Your task to perform on an android device: toggle javascript in the chrome app Image 0: 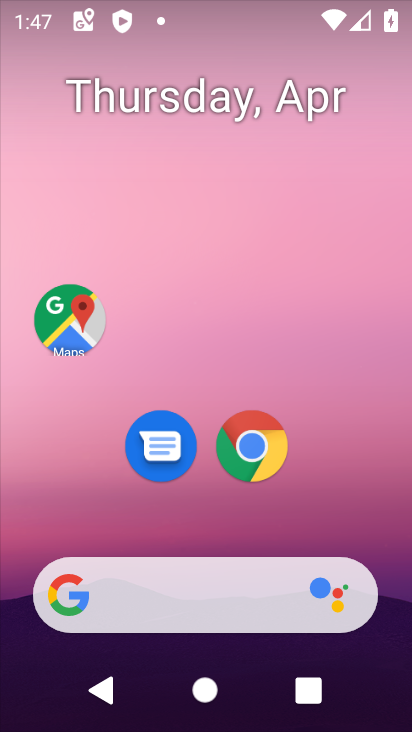
Step 0: click (221, 465)
Your task to perform on an android device: toggle javascript in the chrome app Image 1: 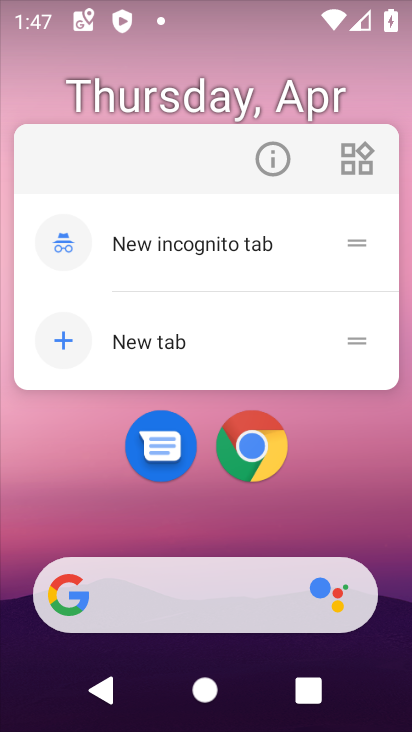
Step 1: click (150, 337)
Your task to perform on an android device: toggle javascript in the chrome app Image 2: 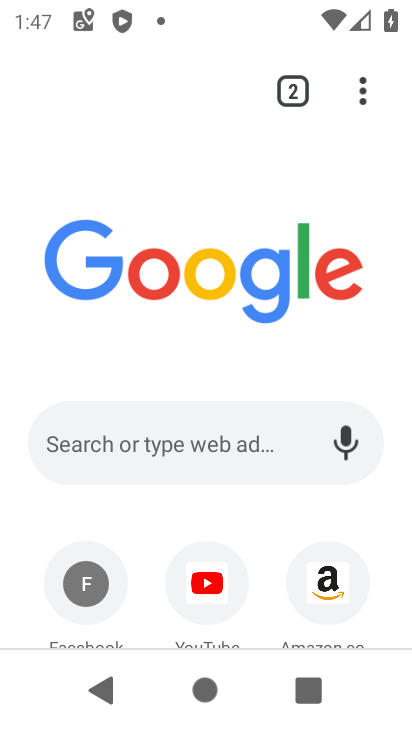
Step 2: click (366, 92)
Your task to perform on an android device: toggle javascript in the chrome app Image 3: 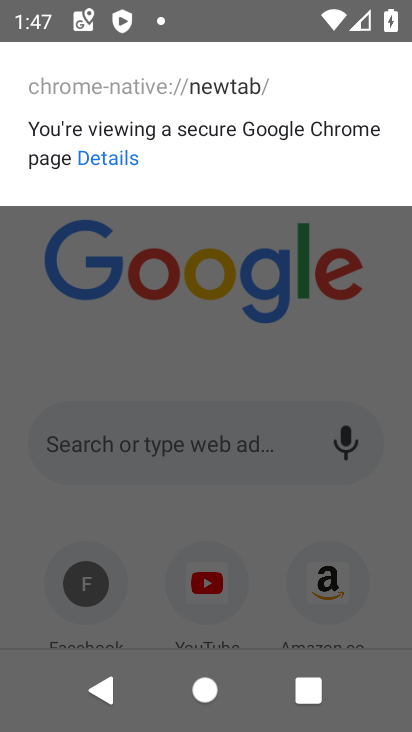
Step 3: click (236, 359)
Your task to perform on an android device: toggle javascript in the chrome app Image 4: 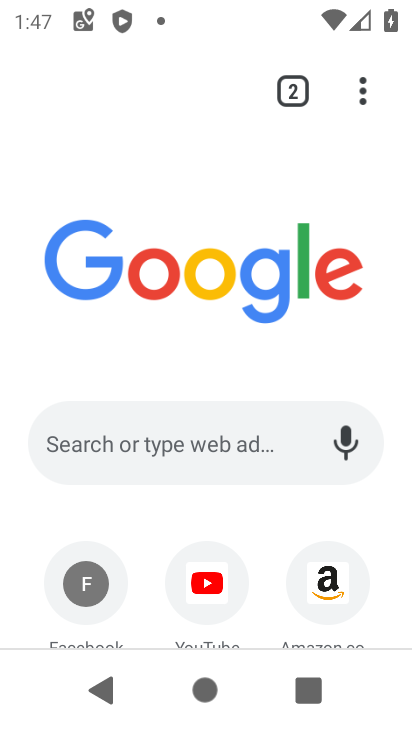
Step 4: click (367, 93)
Your task to perform on an android device: toggle javascript in the chrome app Image 5: 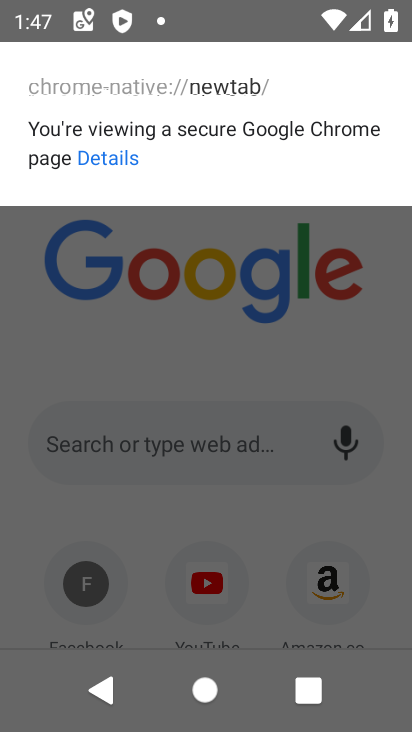
Step 5: click (200, 363)
Your task to perform on an android device: toggle javascript in the chrome app Image 6: 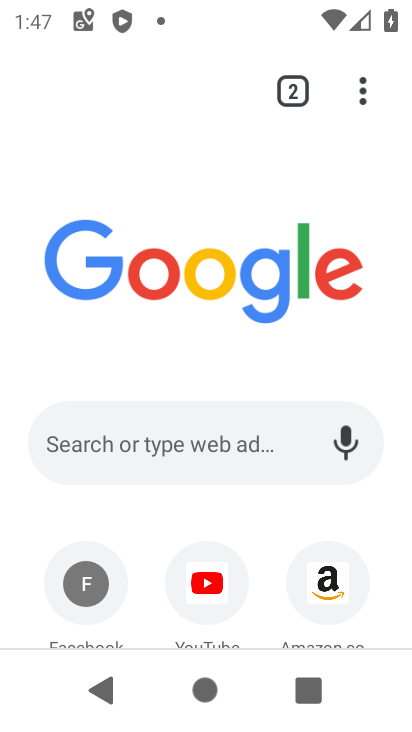
Step 6: click (358, 98)
Your task to perform on an android device: toggle javascript in the chrome app Image 7: 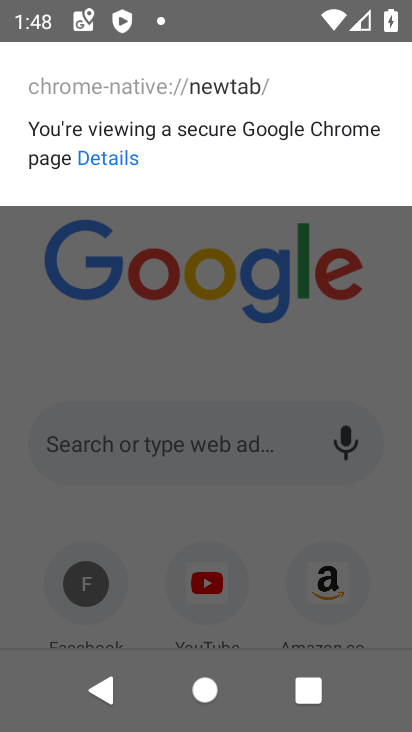
Step 7: click (275, 332)
Your task to perform on an android device: toggle javascript in the chrome app Image 8: 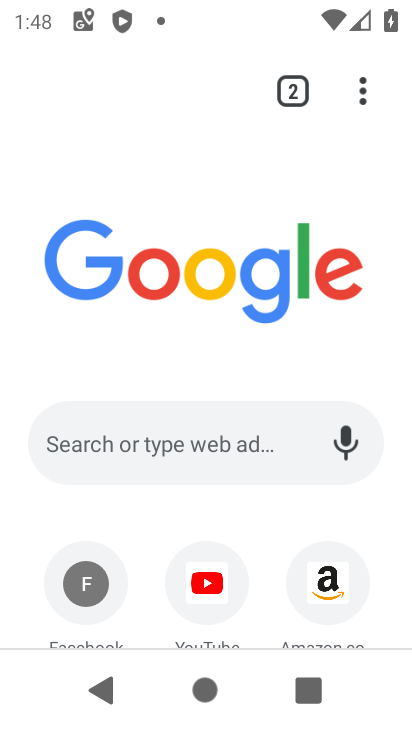
Step 8: click (356, 97)
Your task to perform on an android device: toggle javascript in the chrome app Image 9: 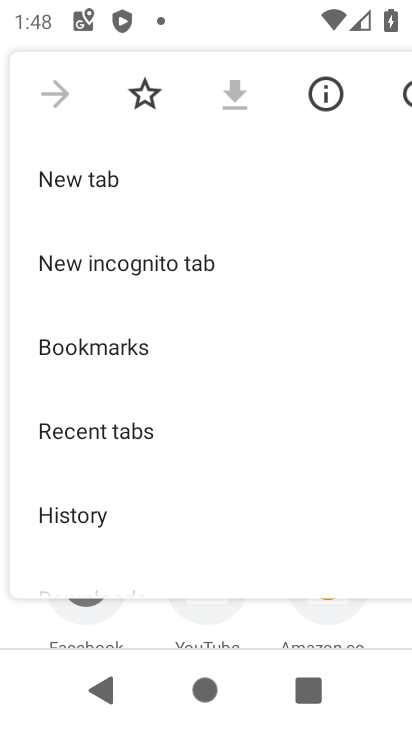
Step 9: drag from (138, 472) to (169, 248)
Your task to perform on an android device: toggle javascript in the chrome app Image 10: 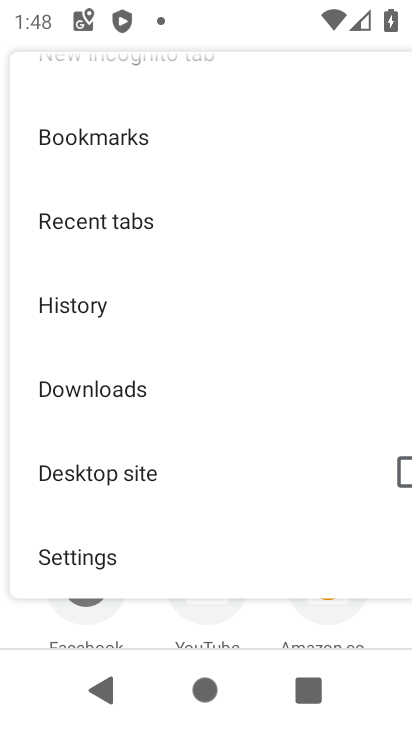
Step 10: drag from (187, 524) to (277, 221)
Your task to perform on an android device: toggle javascript in the chrome app Image 11: 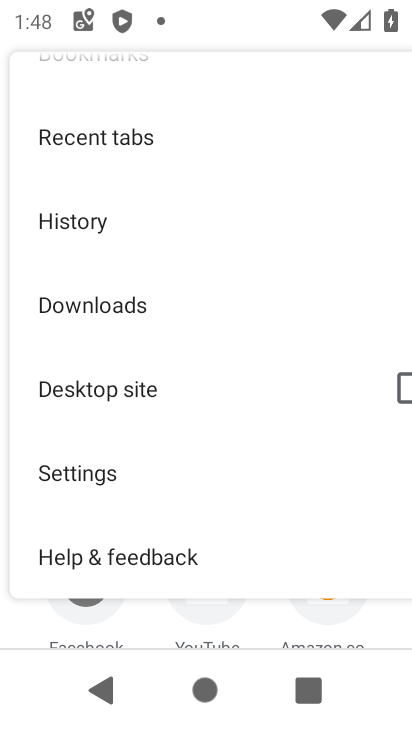
Step 11: click (39, 479)
Your task to perform on an android device: toggle javascript in the chrome app Image 12: 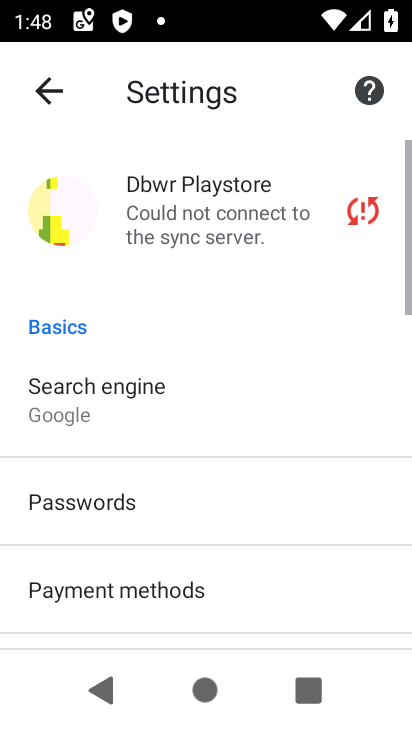
Step 12: drag from (186, 565) to (265, 280)
Your task to perform on an android device: toggle javascript in the chrome app Image 13: 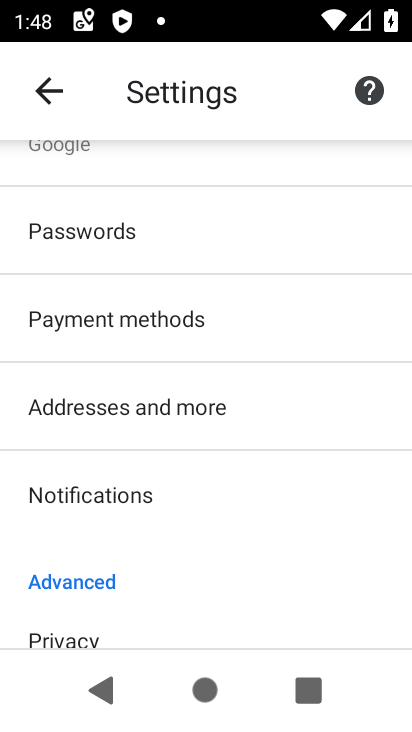
Step 13: drag from (168, 531) to (258, 252)
Your task to perform on an android device: toggle javascript in the chrome app Image 14: 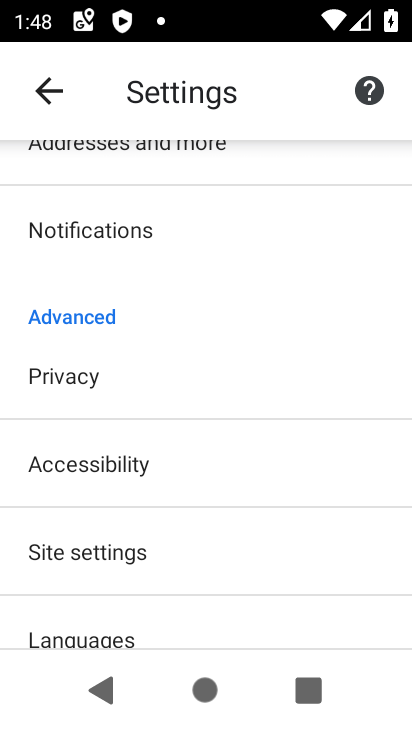
Step 14: click (67, 549)
Your task to perform on an android device: toggle javascript in the chrome app Image 15: 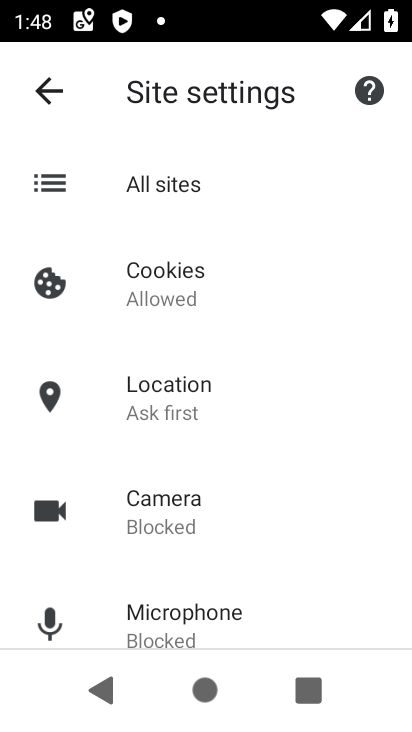
Step 15: drag from (178, 600) to (257, 321)
Your task to perform on an android device: toggle javascript in the chrome app Image 16: 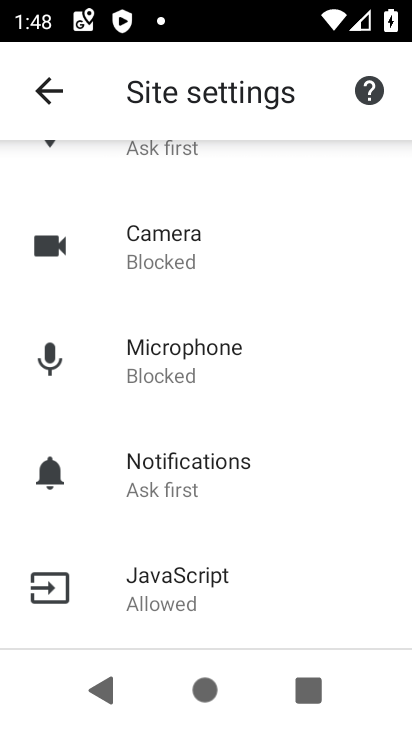
Step 16: click (146, 604)
Your task to perform on an android device: toggle javascript in the chrome app Image 17: 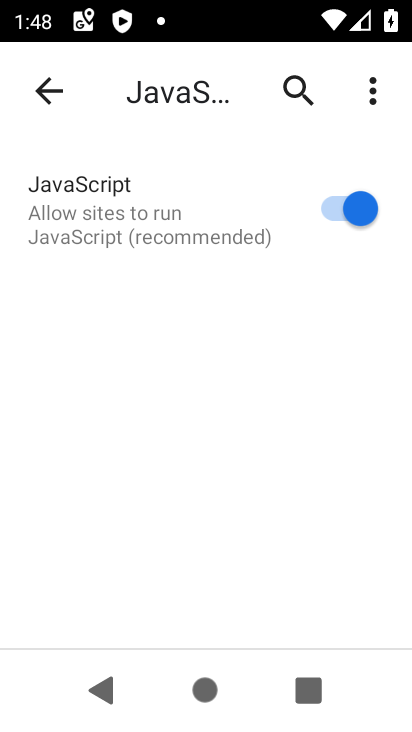
Step 17: click (335, 227)
Your task to perform on an android device: toggle javascript in the chrome app Image 18: 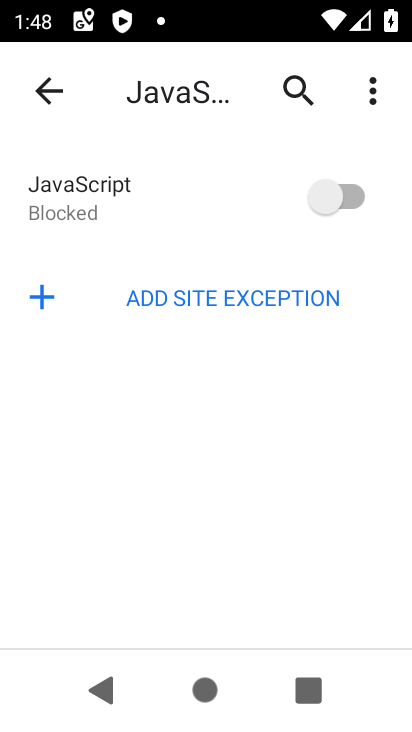
Step 18: task complete